Your task to perform on an android device: What's the weather going to be this weekend? Image 0: 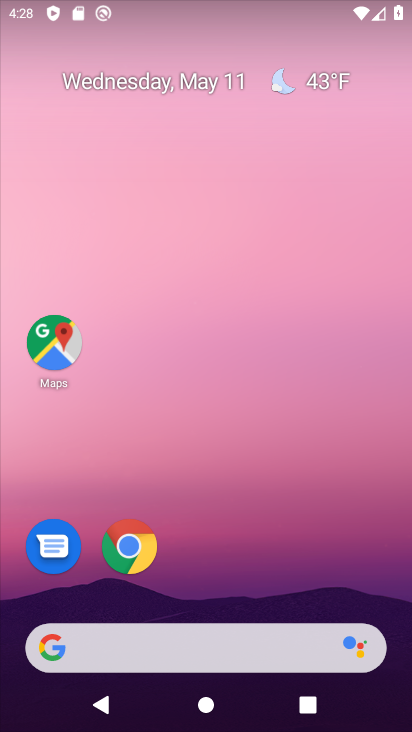
Step 0: drag from (250, 611) to (226, 246)
Your task to perform on an android device: What's the weather going to be this weekend? Image 1: 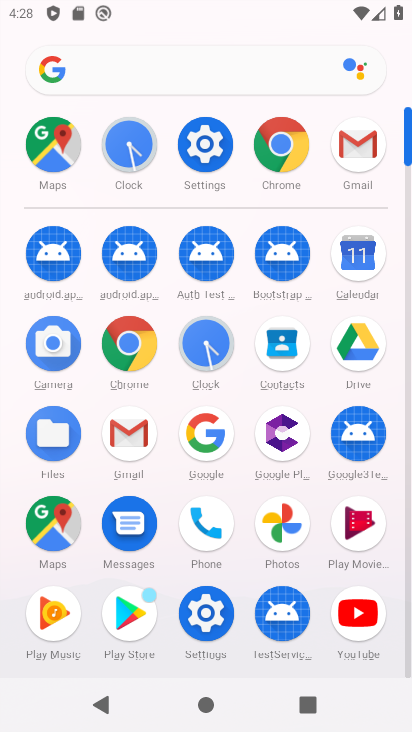
Step 1: click (202, 435)
Your task to perform on an android device: What's the weather going to be this weekend? Image 2: 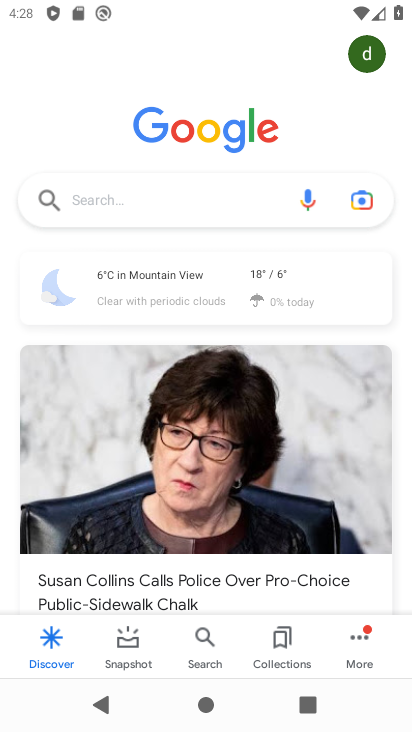
Step 2: click (170, 195)
Your task to perform on an android device: What's the weather going to be this weekend? Image 3: 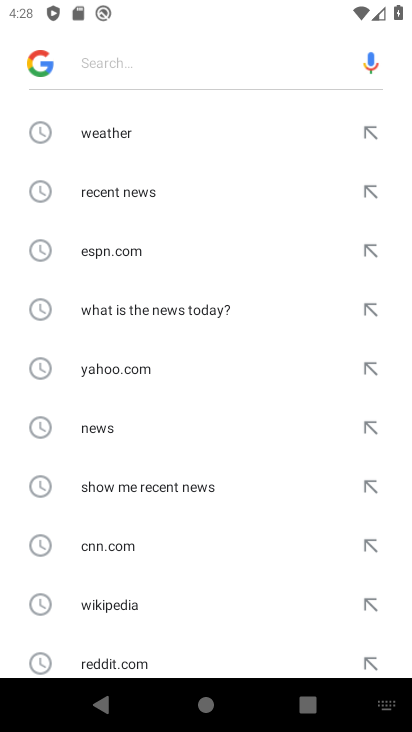
Step 3: drag from (149, 609) to (148, 302)
Your task to perform on an android device: What's the weather going to be this weekend? Image 4: 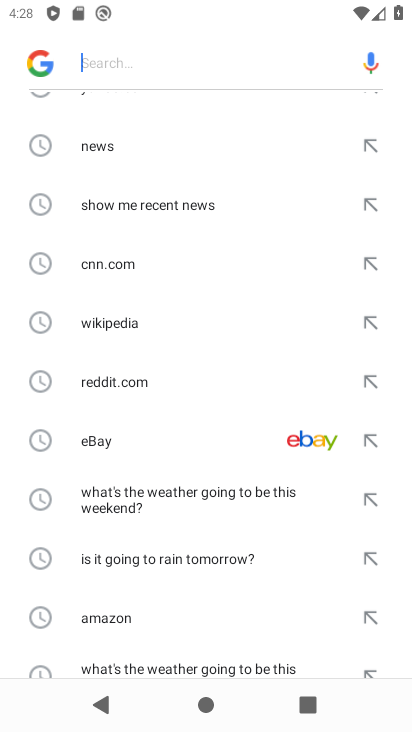
Step 4: click (168, 505)
Your task to perform on an android device: What's the weather going to be this weekend? Image 5: 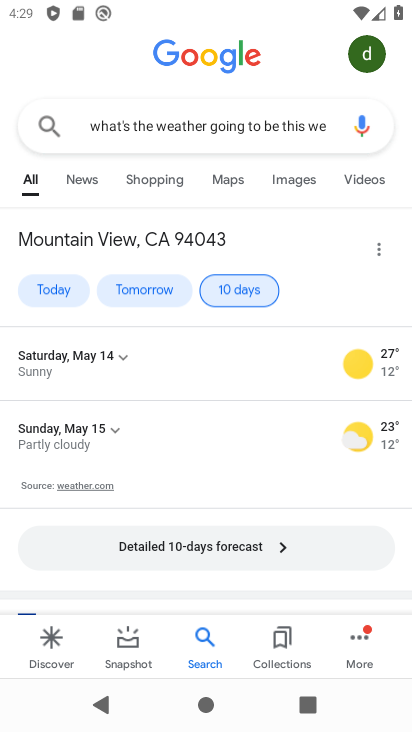
Step 5: click (222, 550)
Your task to perform on an android device: What's the weather going to be this weekend? Image 6: 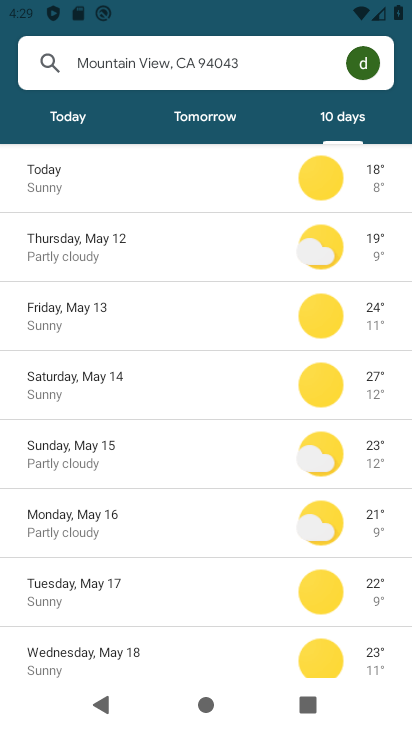
Step 6: task complete